Your task to perform on an android device: Open the calendar app, open the side menu, and click the "Day" option Image 0: 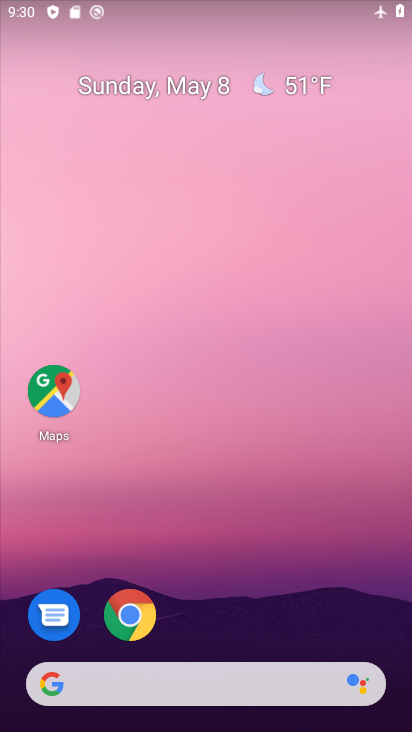
Step 0: drag from (208, 606) to (211, 219)
Your task to perform on an android device: Open the calendar app, open the side menu, and click the "Day" option Image 1: 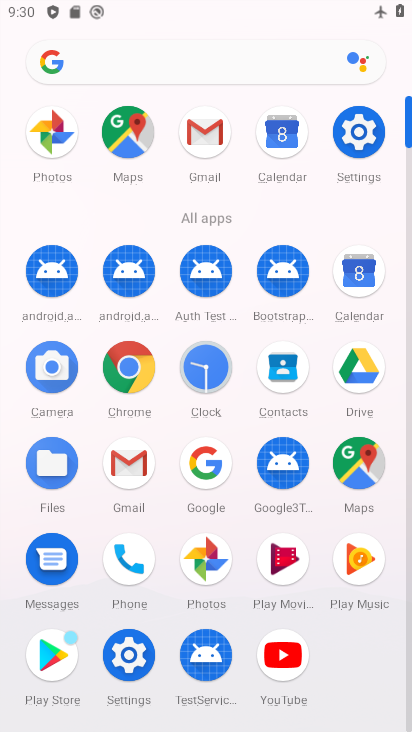
Step 1: click (364, 285)
Your task to perform on an android device: Open the calendar app, open the side menu, and click the "Day" option Image 2: 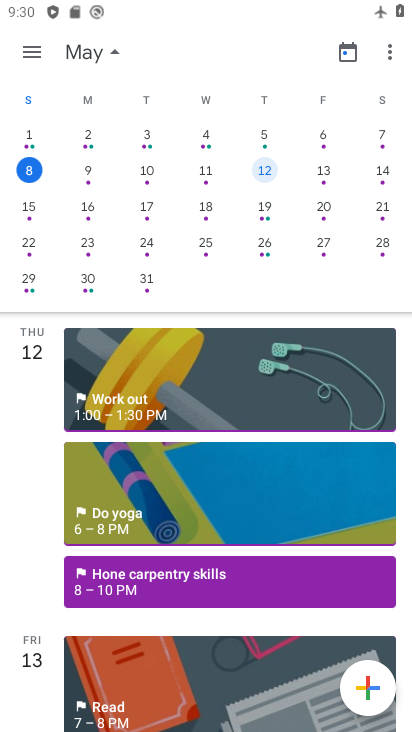
Step 2: click (36, 48)
Your task to perform on an android device: Open the calendar app, open the side menu, and click the "Day" option Image 3: 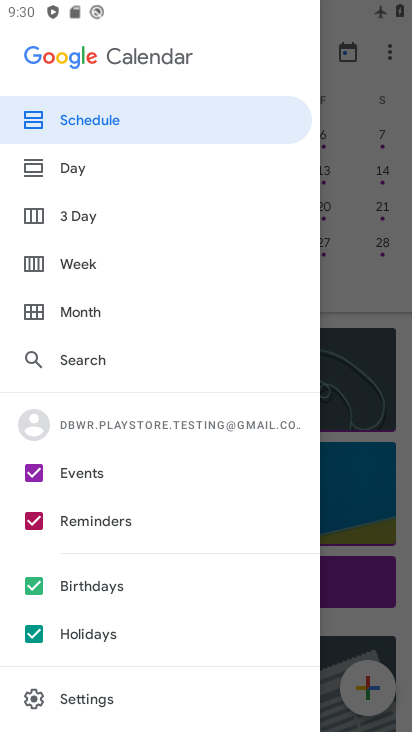
Step 3: click (65, 166)
Your task to perform on an android device: Open the calendar app, open the side menu, and click the "Day" option Image 4: 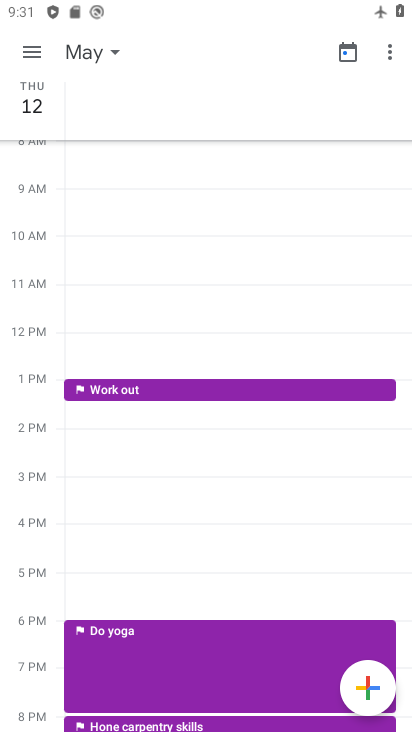
Step 4: task complete